Your task to perform on an android device: star an email in the gmail app Image 0: 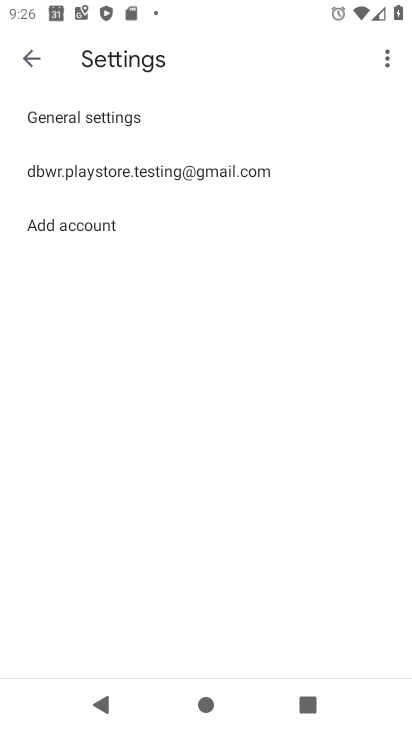
Step 0: press home button
Your task to perform on an android device: star an email in the gmail app Image 1: 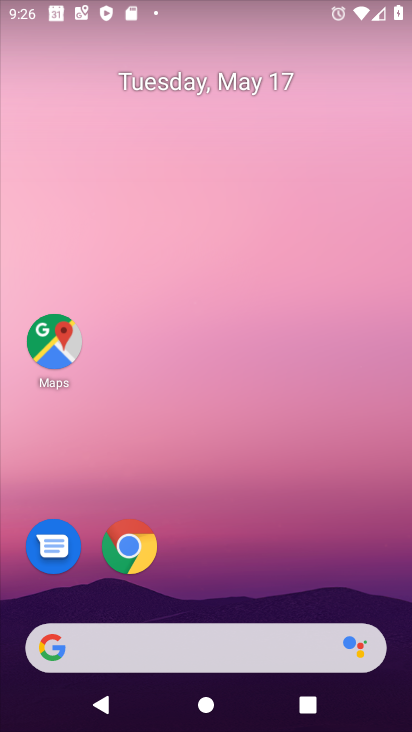
Step 1: drag from (246, 579) to (344, 20)
Your task to perform on an android device: star an email in the gmail app Image 2: 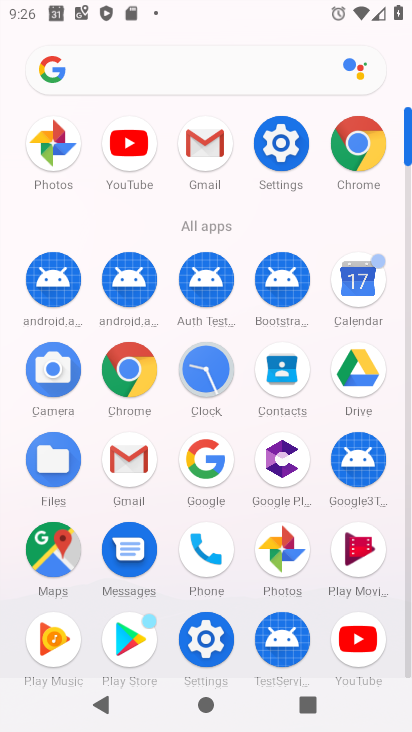
Step 2: click (128, 453)
Your task to perform on an android device: star an email in the gmail app Image 3: 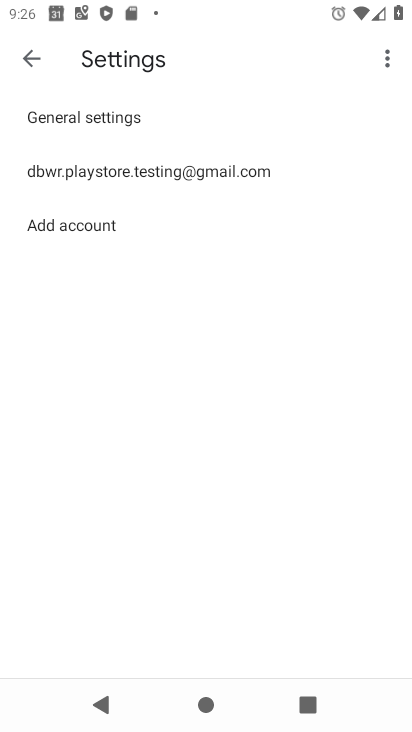
Step 3: click (37, 50)
Your task to perform on an android device: star an email in the gmail app Image 4: 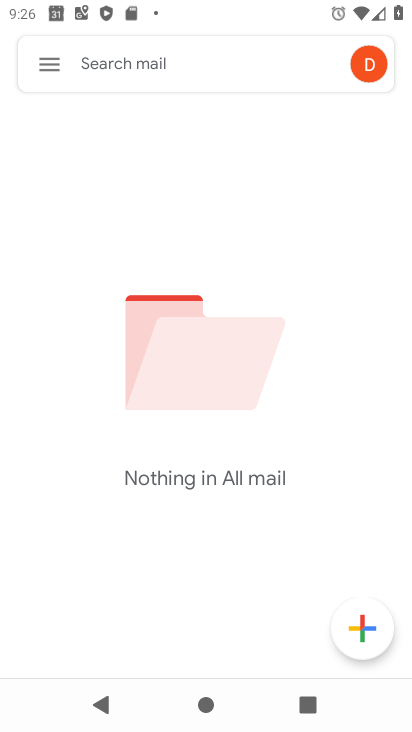
Step 4: click (47, 61)
Your task to perform on an android device: star an email in the gmail app Image 5: 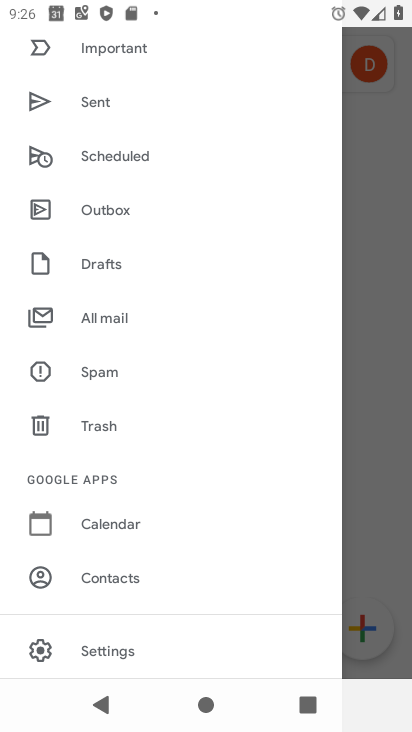
Step 5: click (155, 315)
Your task to perform on an android device: star an email in the gmail app Image 6: 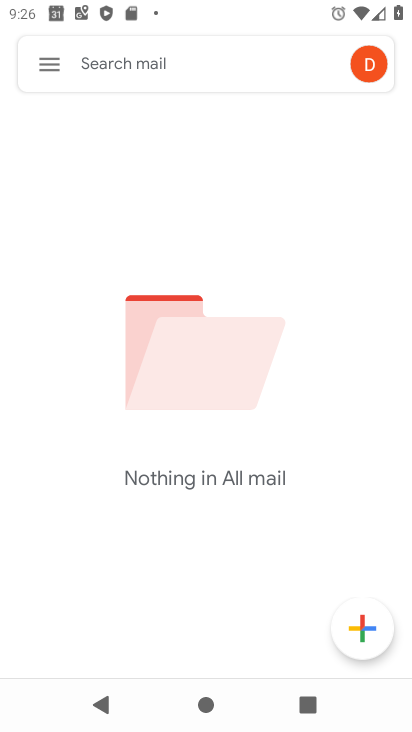
Step 6: task complete